Your task to perform on an android device: Open my contact list Image 0: 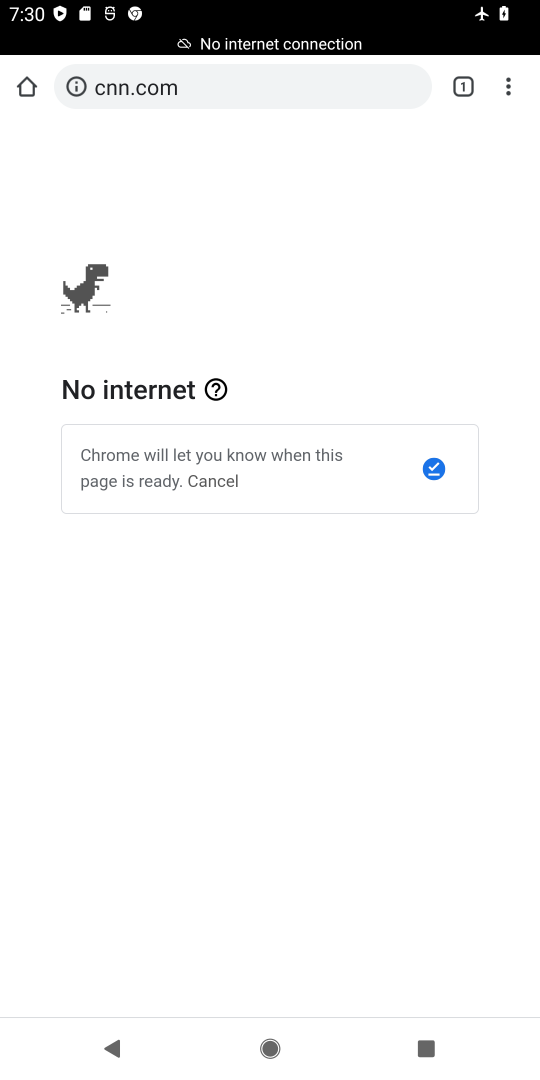
Step 0: press home button
Your task to perform on an android device: Open my contact list Image 1: 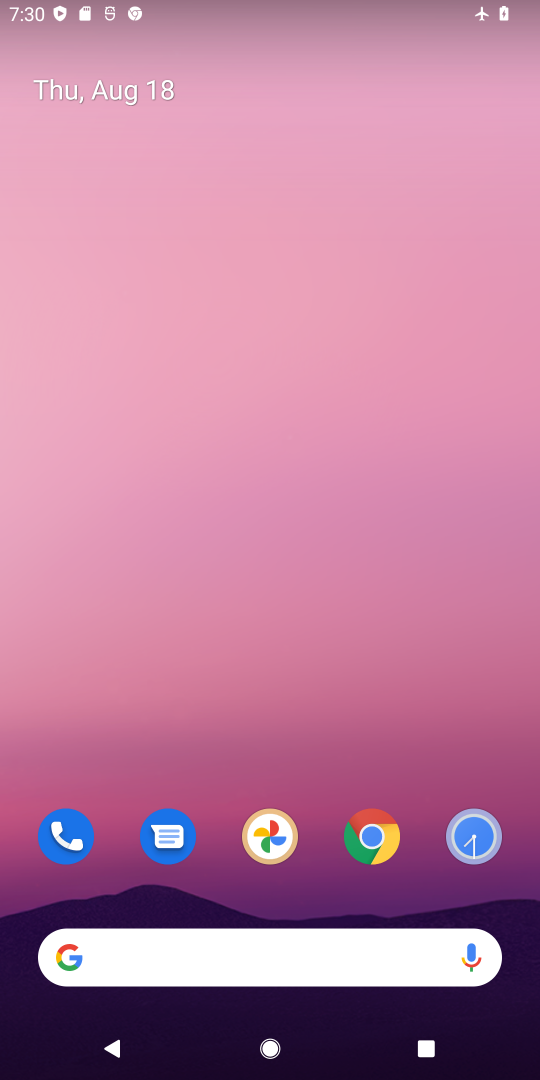
Step 1: drag from (404, 740) to (411, 1)
Your task to perform on an android device: Open my contact list Image 2: 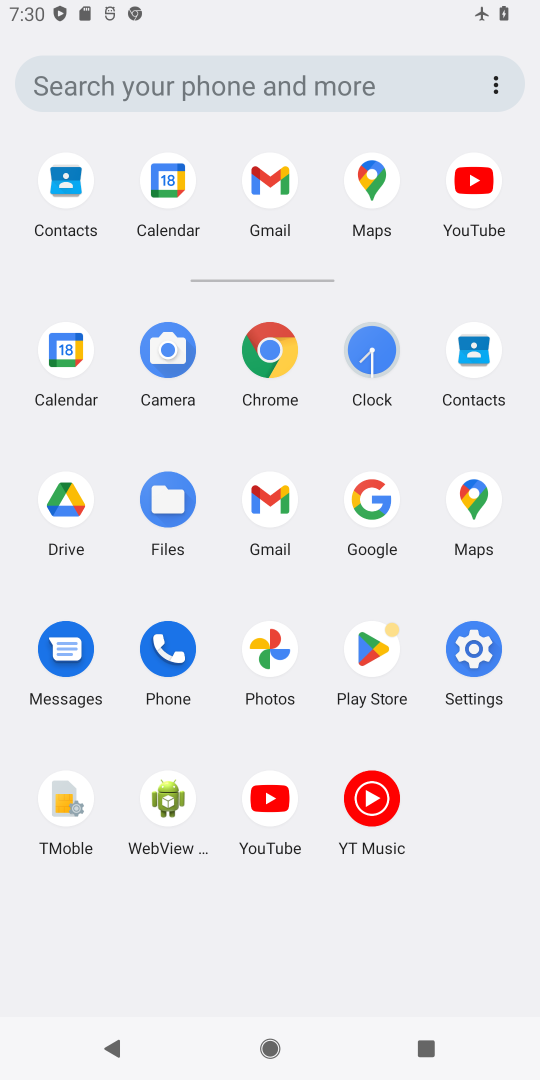
Step 2: click (470, 345)
Your task to perform on an android device: Open my contact list Image 3: 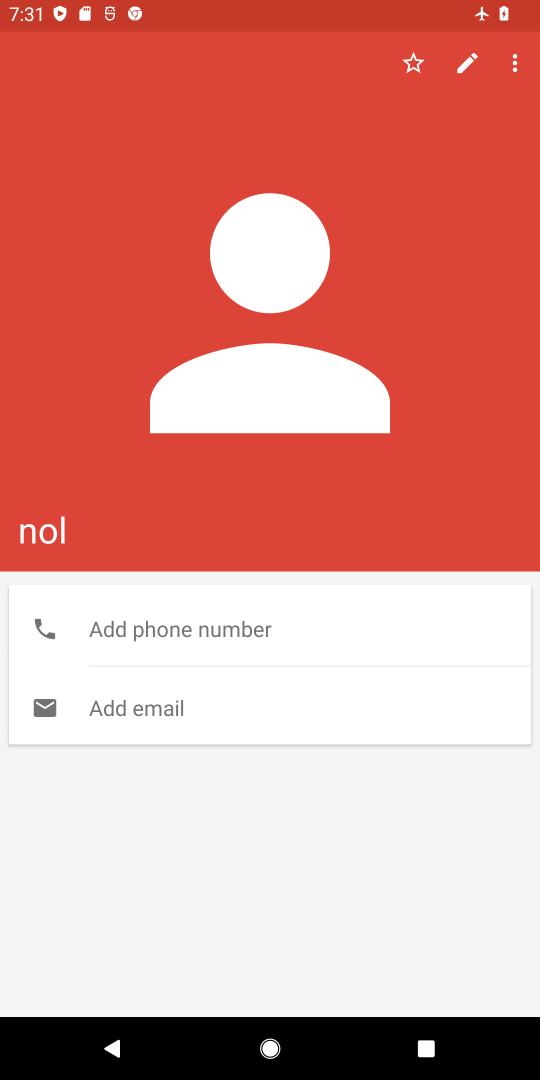
Step 3: task complete